Your task to perform on an android device: turn on location history Image 0: 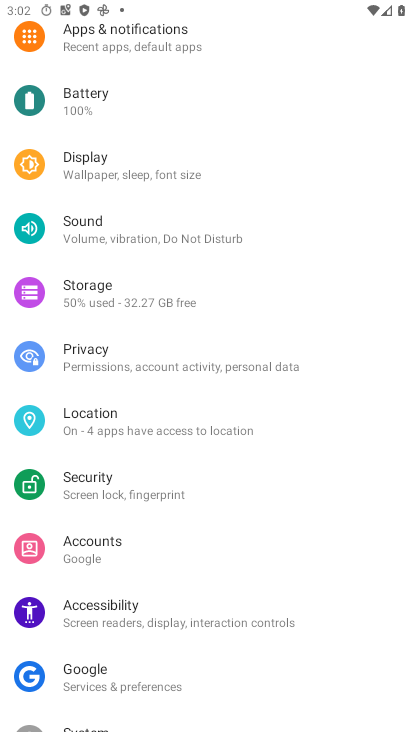
Step 0: press home button
Your task to perform on an android device: turn on location history Image 1: 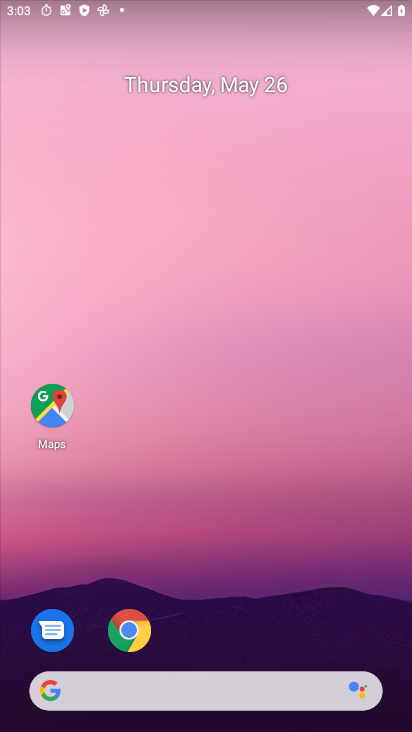
Step 1: drag from (191, 585) to (151, 312)
Your task to perform on an android device: turn on location history Image 2: 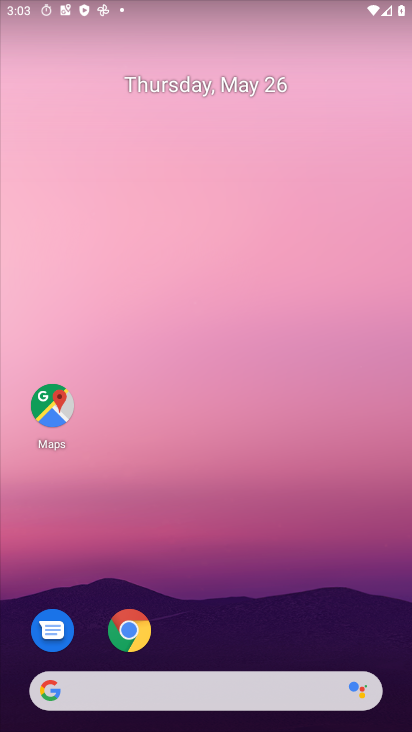
Step 2: drag from (191, 356) to (177, 118)
Your task to perform on an android device: turn on location history Image 3: 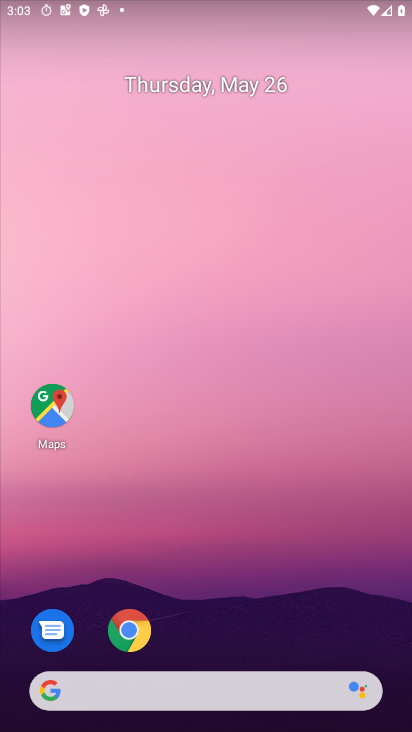
Step 3: drag from (217, 566) to (164, 265)
Your task to perform on an android device: turn on location history Image 4: 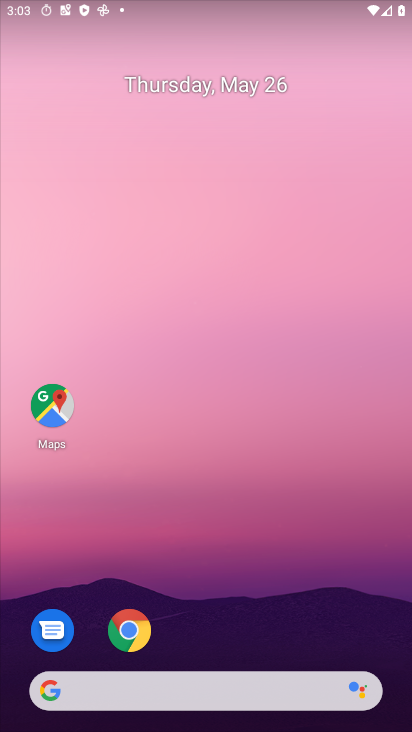
Step 4: drag from (220, 643) to (206, 111)
Your task to perform on an android device: turn on location history Image 5: 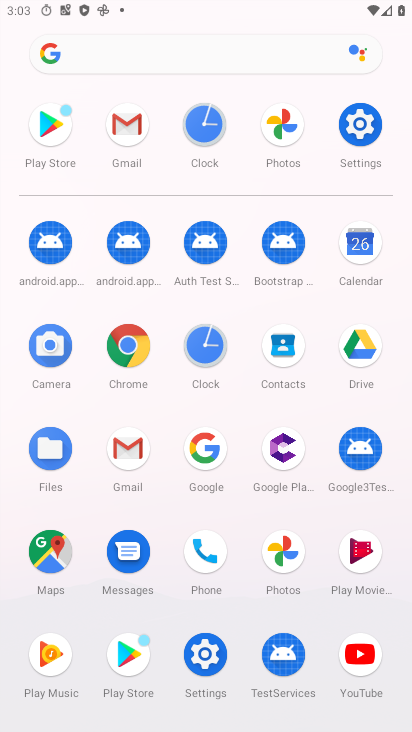
Step 5: click (373, 142)
Your task to perform on an android device: turn on location history Image 6: 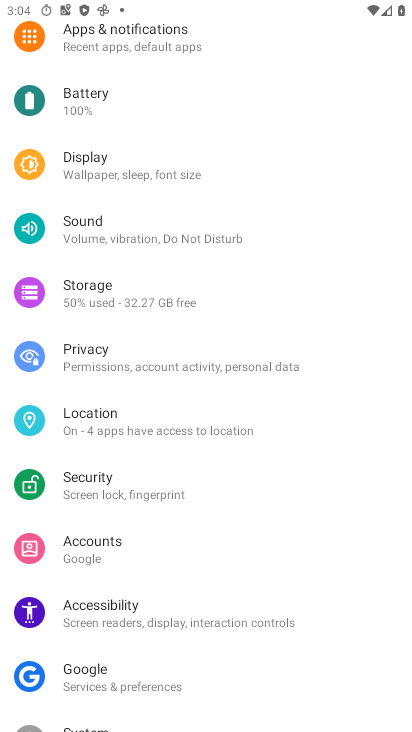
Step 6: click (77, 427)
Your task to perform on an android device: turn on location history Image 7: 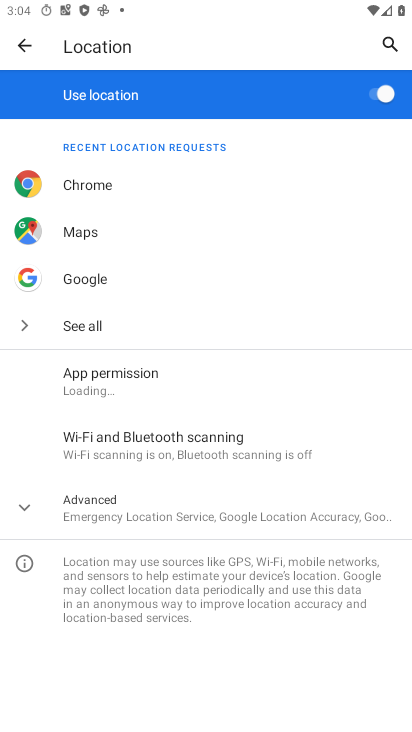
Step 7: click (149, 502)
Your task to perform on an android device: turn on location history Image 8: 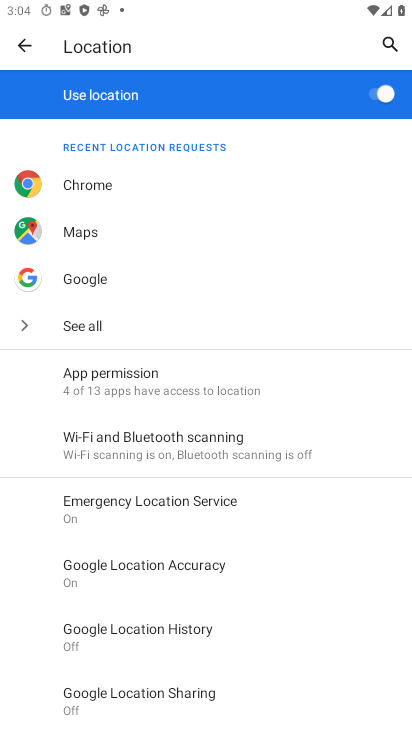
Step 8: click (170, 631)
Your task to perform on an android device: turn on location history Image 9: 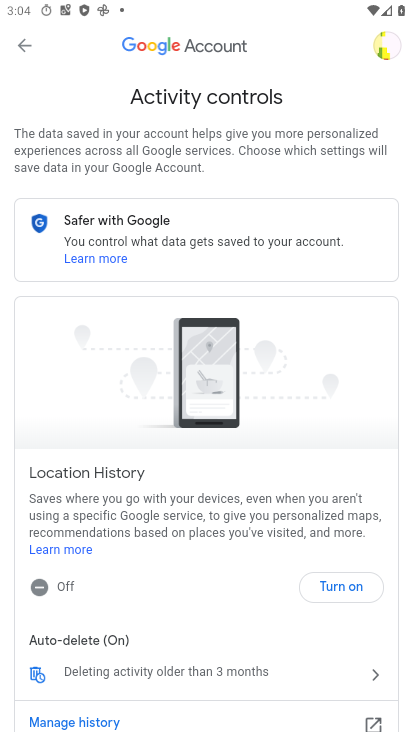
Step 9: click (347, 585)
Your task to perform on an android device: turn on location history Image 10: 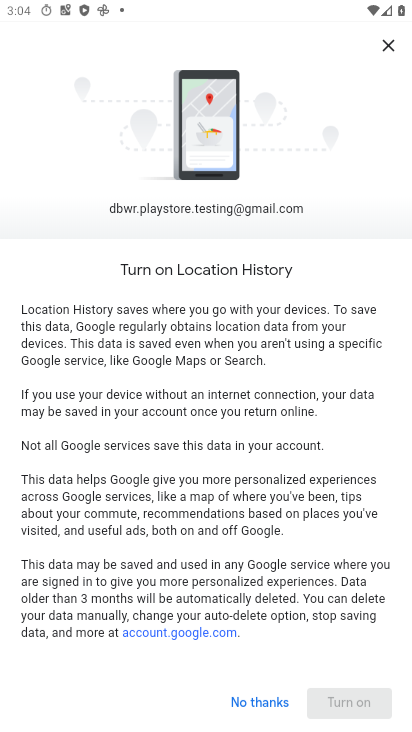
Step 10: click (347, 585)
Your task to perform on an android device: turn on location history Image 11: 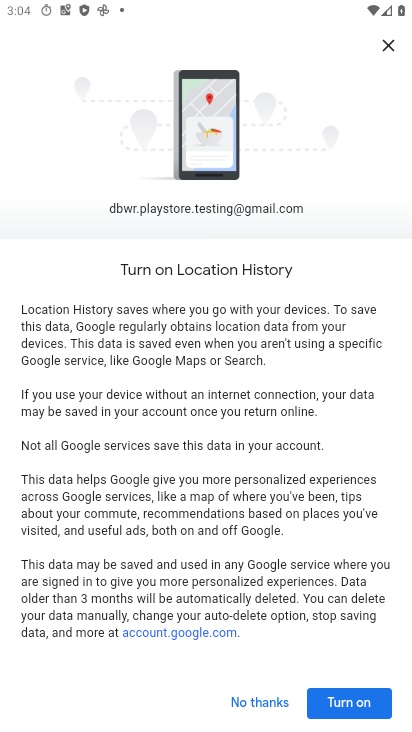
Step 11: click (359, 705)
Your task to perform on an android device: turn on location history Image 12: 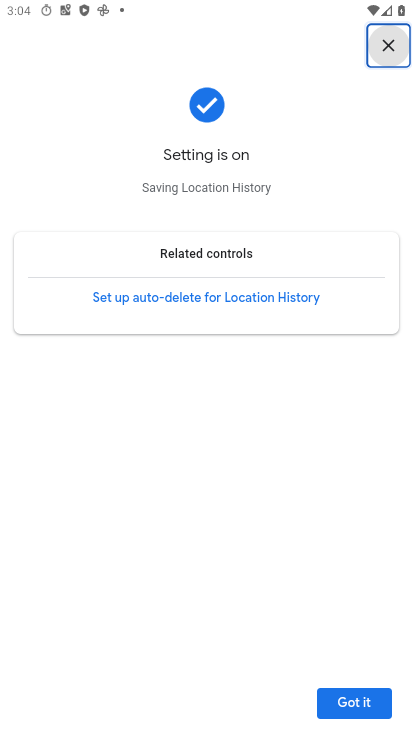
Step 12: click (359, 705)
Your task to perform on an android device: turn on location history Image 13: 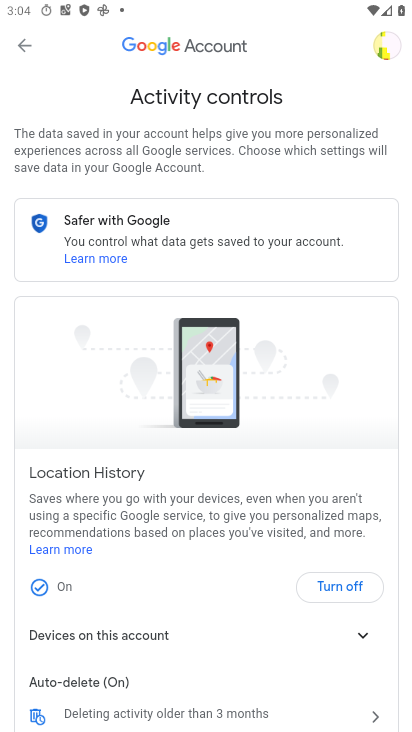
Step 13: task complete